Your task to perform on an android device: Open ESPN.com Image 0: 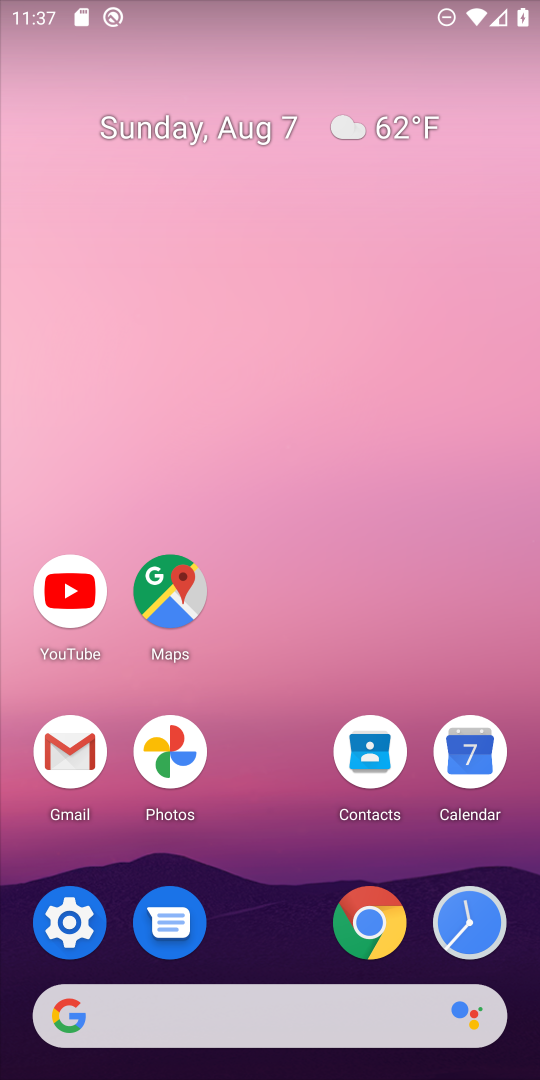
Step 0: click (374, 917)
Your task to perform on an android device: Open ESPN.com Image 1: 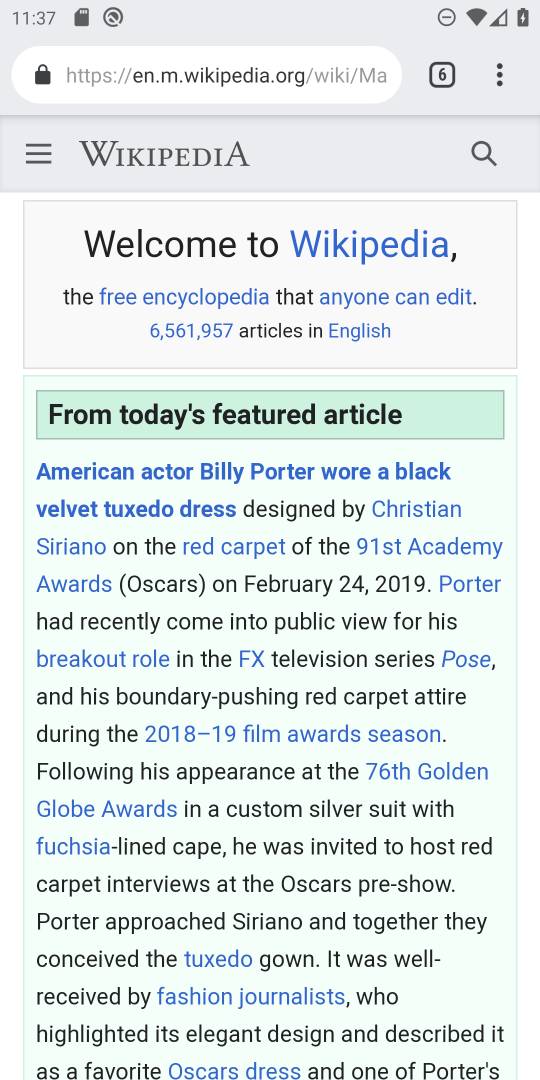
Step 1: click (493, 80)
Your task to perform on an android device: Open ESPN.com Image 2: 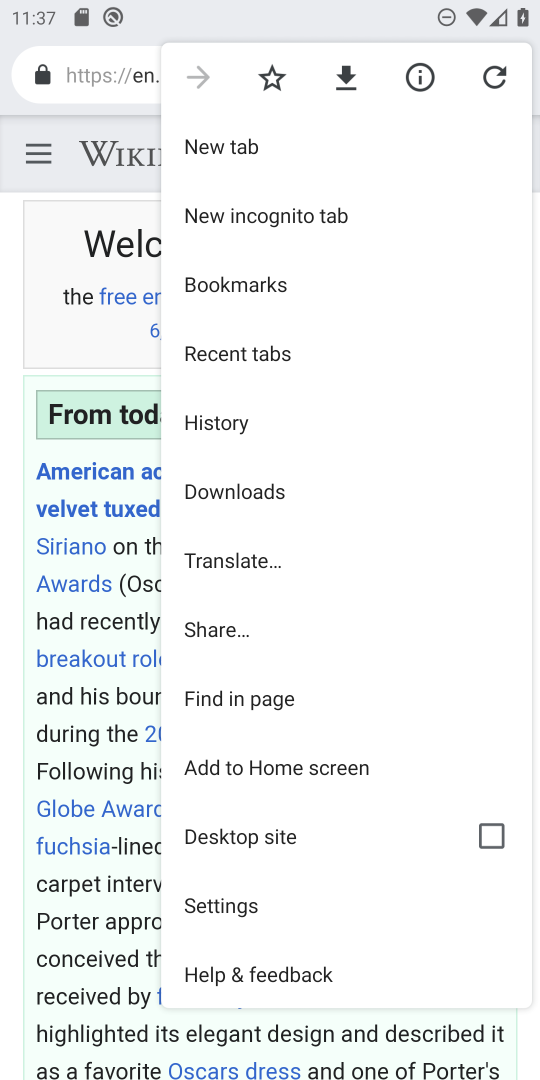
Step 2: click (224, 134)
Your task to perform on an android device: Open ESPN.com Image 3: 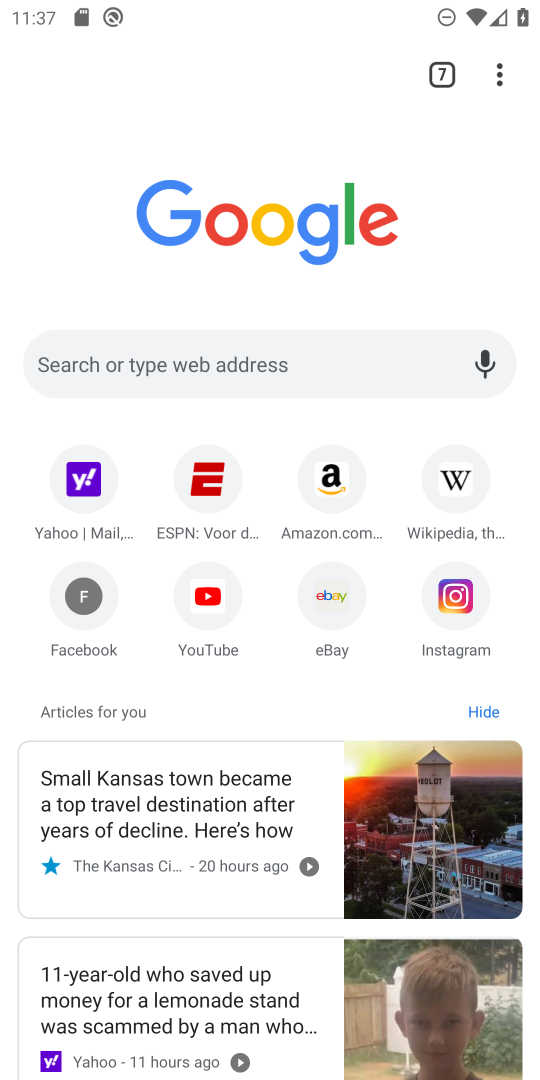
Step 3: click (204, 485)
Your task to perform on an android device: Open ESPN.com Image 4: 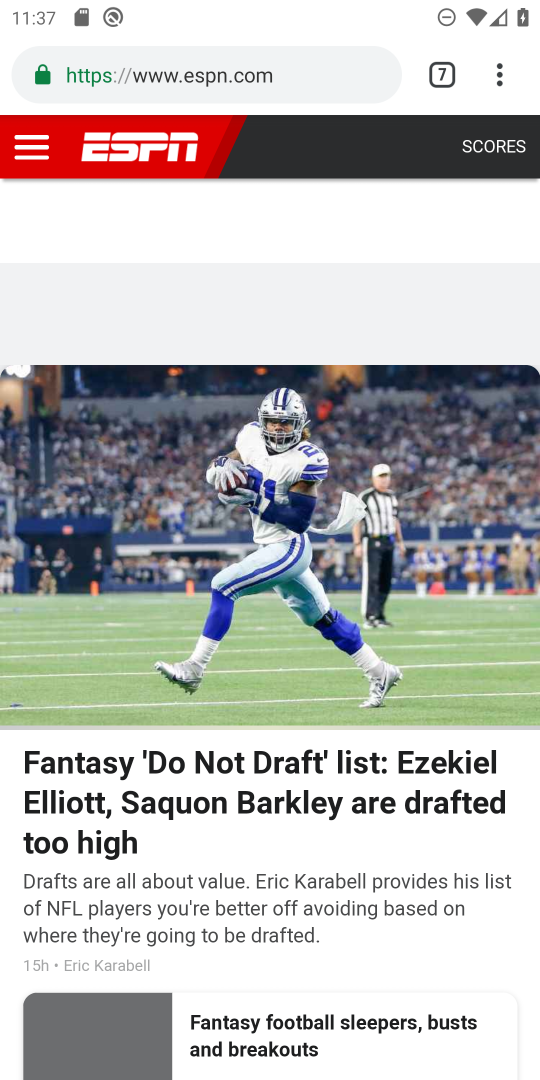
Step 4: task complete